Your task to perform on an android device: View the shopping cart on walmart.com. Image 0: 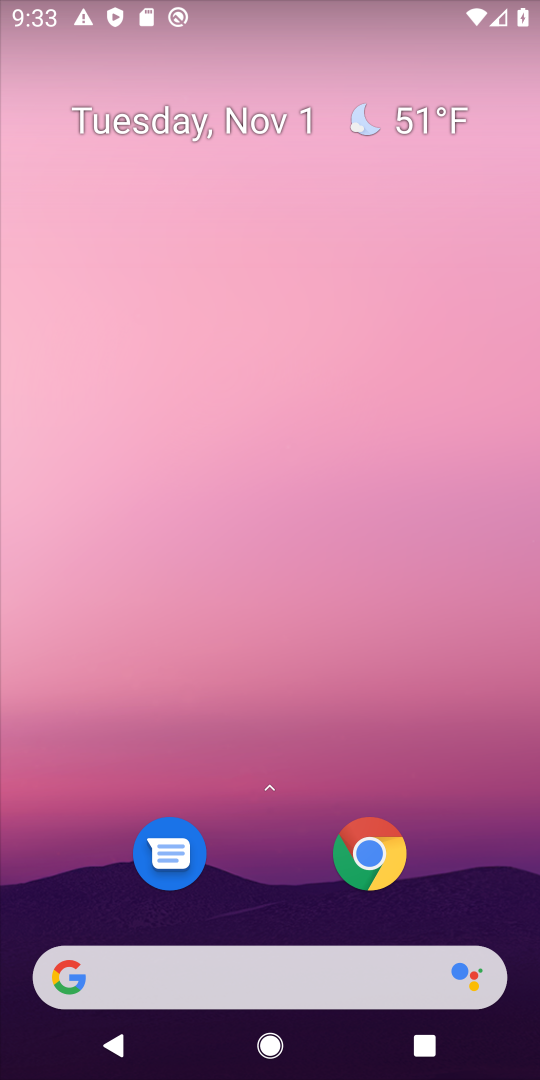
Step 0: click (110, 993)
Your task to perform on an android device: View the shopping cart on walmart.com. Image 1: 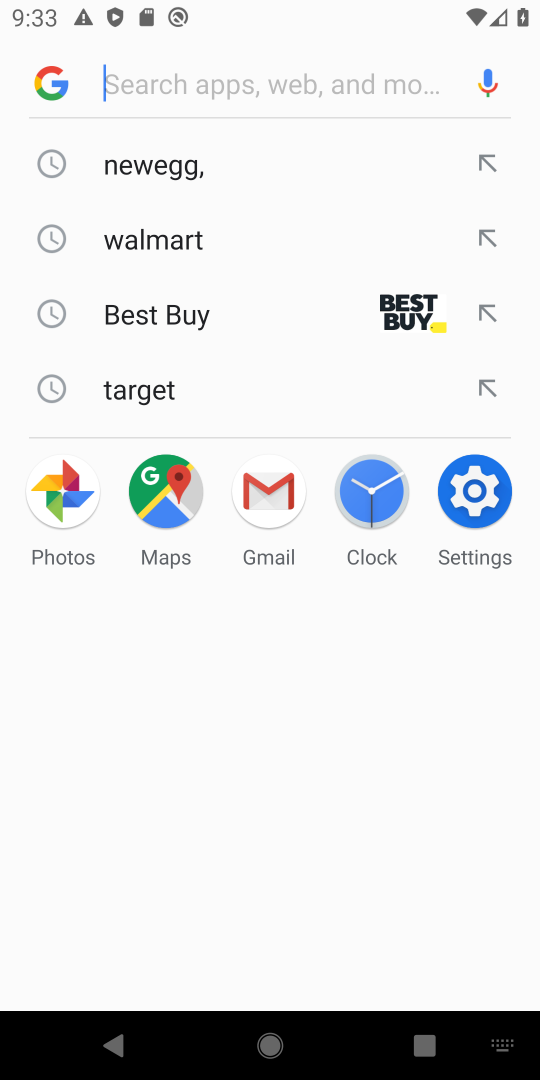
Step 1: type "walmart"
Your task to perform on an android device: View the shopping cart on walmart.com. Image 2: 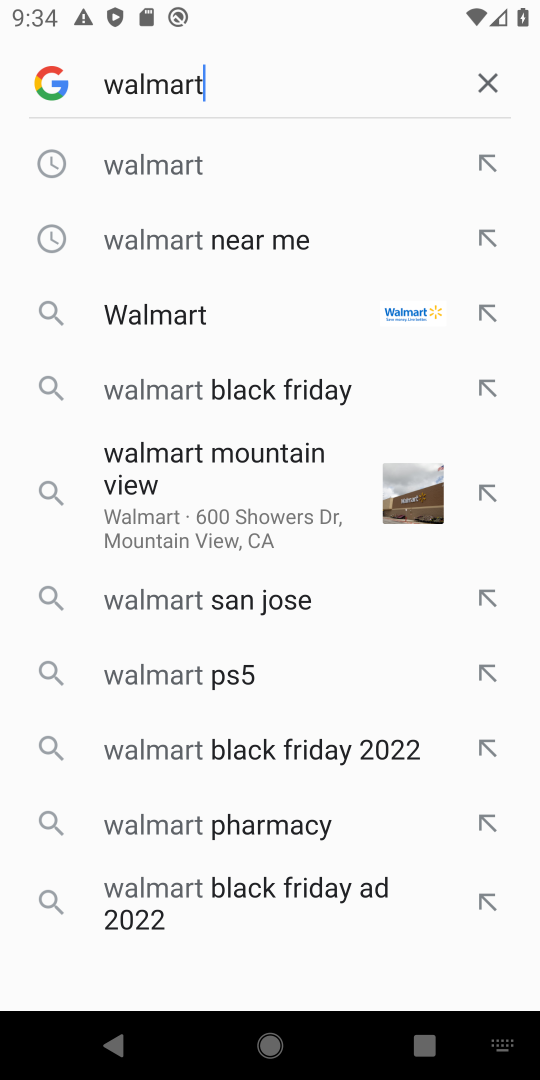
Step 2: click (160, 172)
Your task to perform on an android device: View the shopping cart on walmart.com. Image 3: 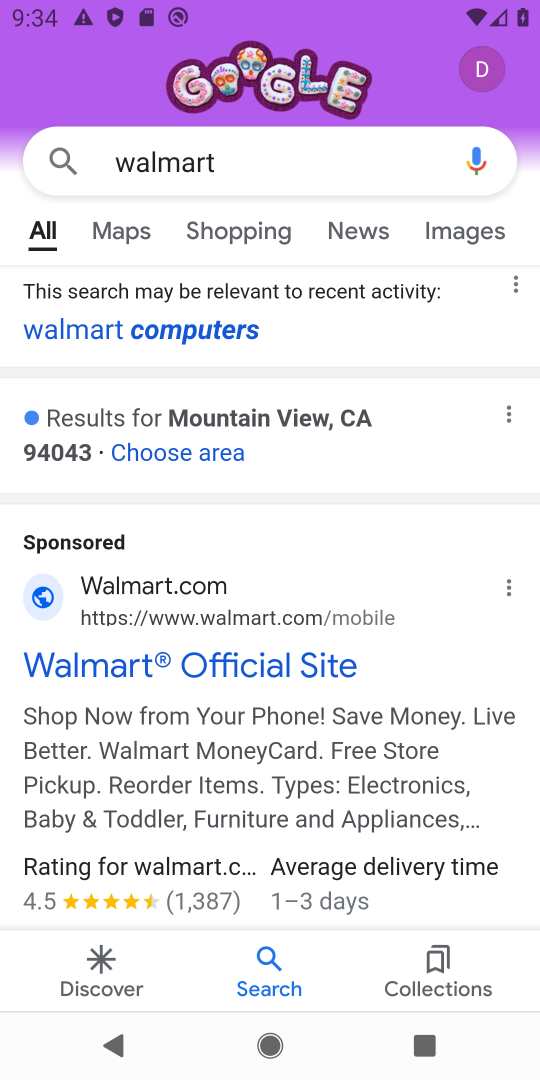
Step 3: click (83, 657)
Your task to perform on an android device: View the shopping cart on walmart.com. Image 4: 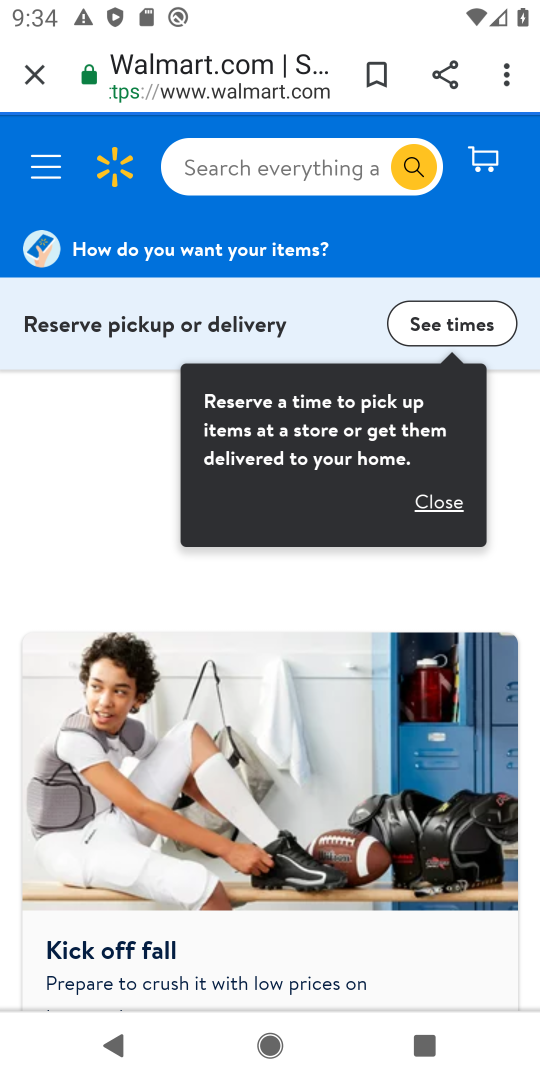
Step 4: click (263, 175)
Your task to perform on an android device: View the shopping cart on walmart.com. Image 5: 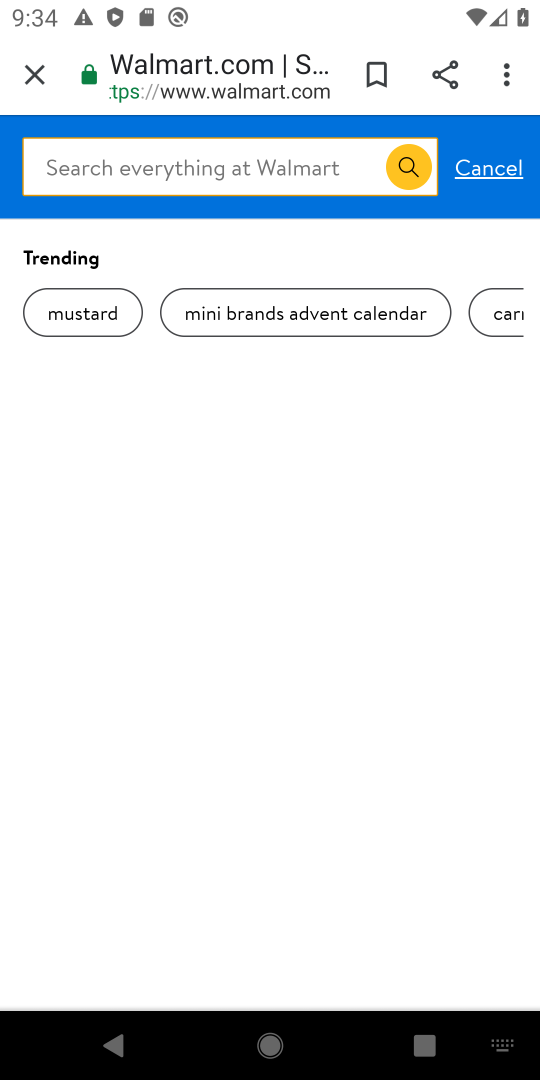
Step 5: click (473, 174)
Your task to perform on an android device: View the shopping cart on walmart.com. Image 6: 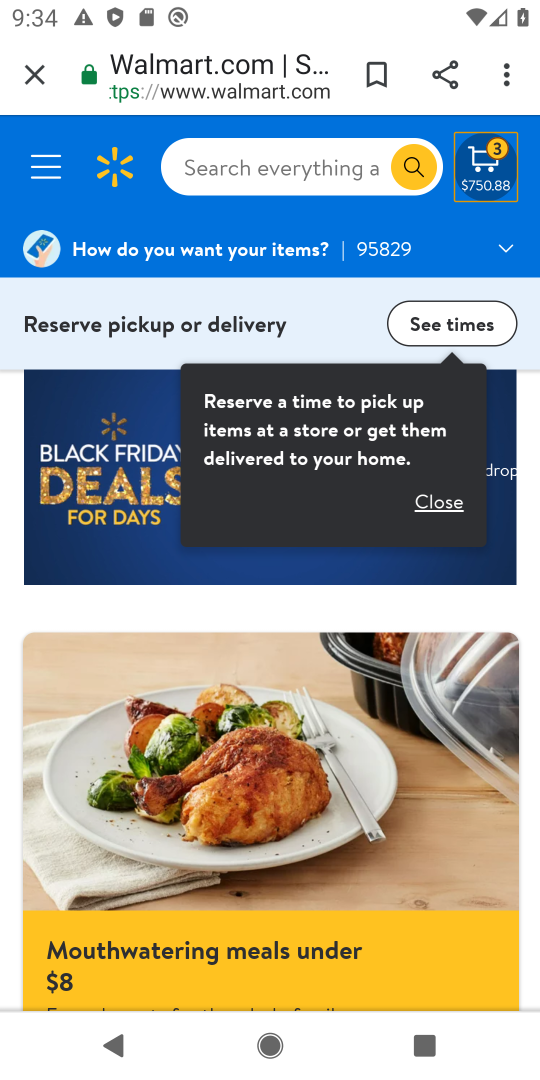
Step 6: click (479, 168)
Your task to perform on an android device: View the shopping cart on walmart.com. Image 7: 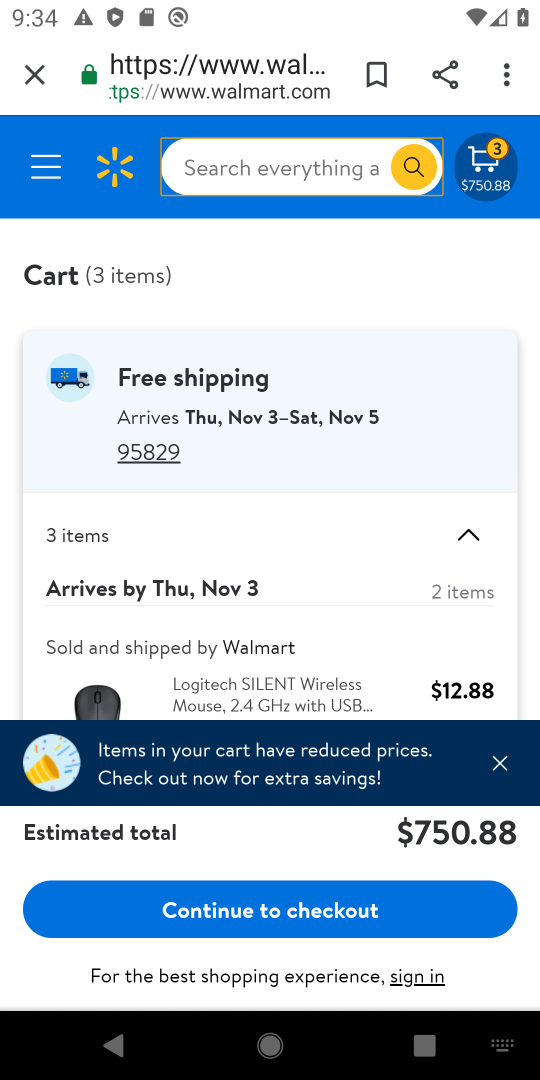
Step 7: task complete